Your task to perform on an android device: turn on the 24-hour format for clock Image 0: 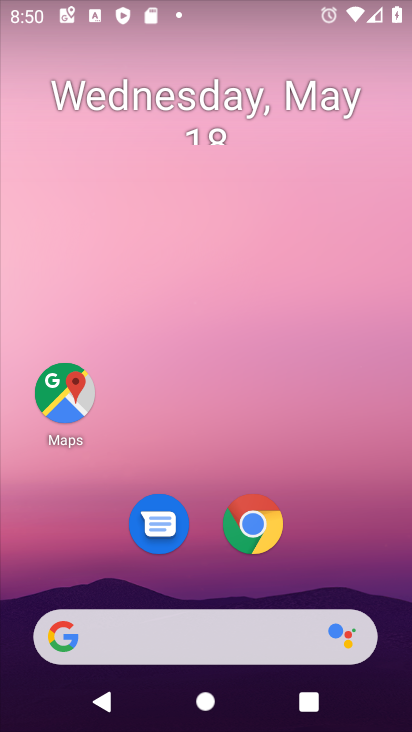
Step 0: drag from (354, 505) to (323, 53)
Your task to perform on an android device: turn on the 24-hour format for clock Image 1: 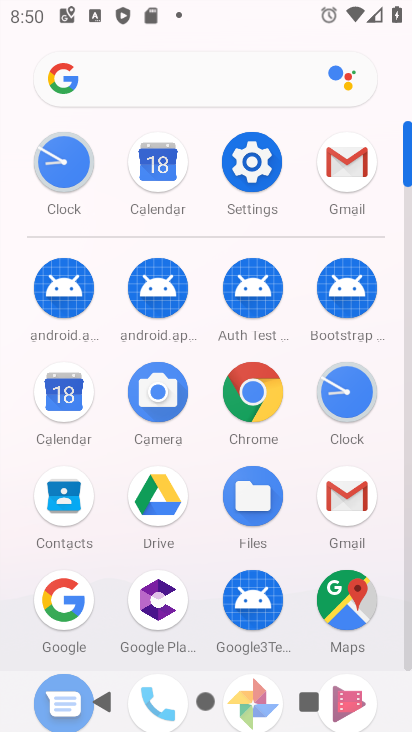
Step 1: click (77, 157)
Your task to perform on an android device: turn on the 24-hour format for clock Image 2: 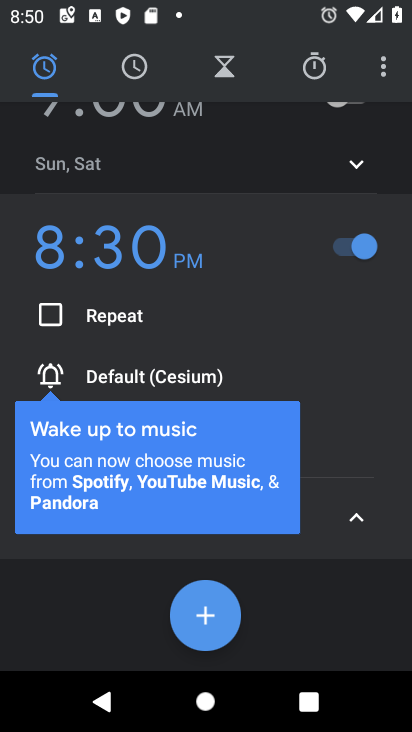
Step 2: click (384, 72)
Your task to perform on an android device: turn on the 24-hour format for clock Image 3: 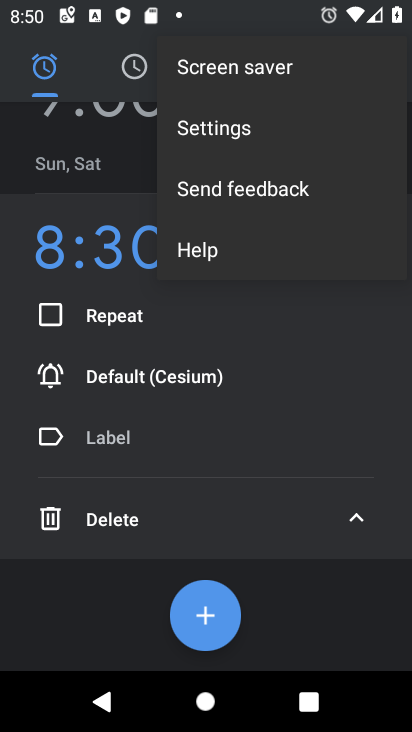
Step 3: click (270, 130)
Your task to perform on an android device: turn on the 24-hour format for clock Image 4: 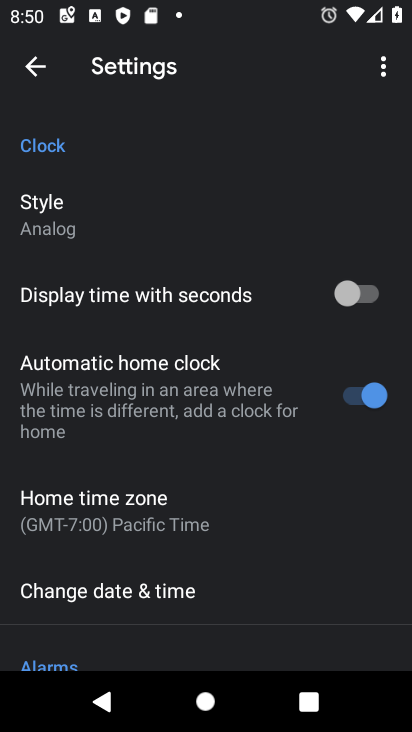
Step 4: click (231, 588)
Your task to perform on an android device: turn on the 24-hour format for clock Image 5: 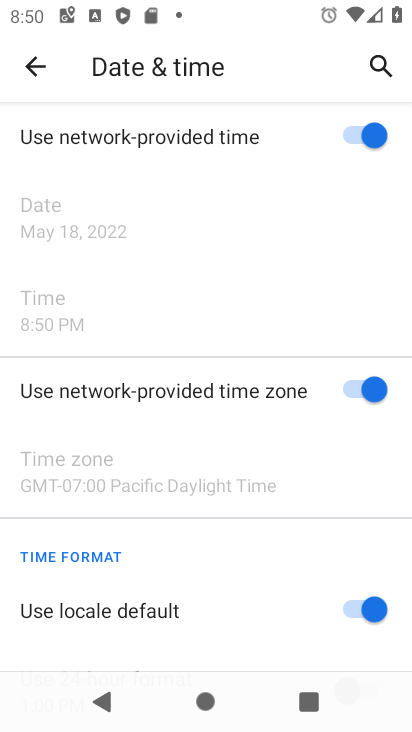
Step 5: drag from (286, 579) to (252, 411)
Your task to perform on an android device: turn on the 24-hour format for clock Image 6: 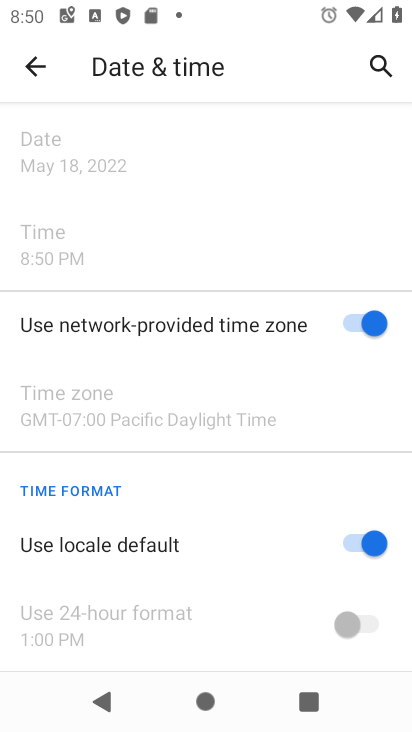
Step 6: click (355, 536)
Your task to perform on an android device: turn on the 24-hour format for clock Image 7: 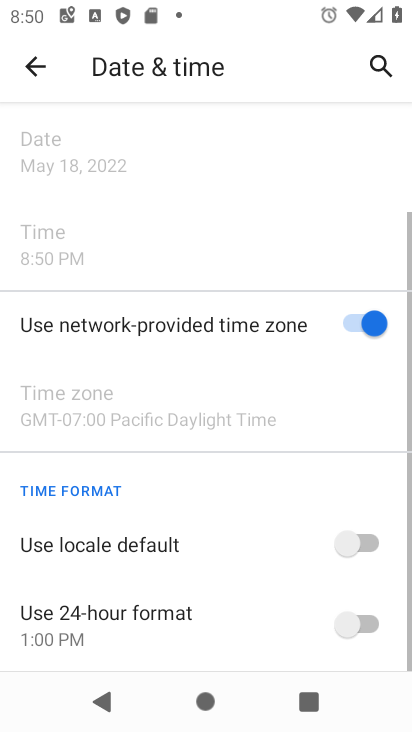
Step 7: click (369, 623)
Your task to perform on an android device: turn on the 24-hour format for clock Image 8: 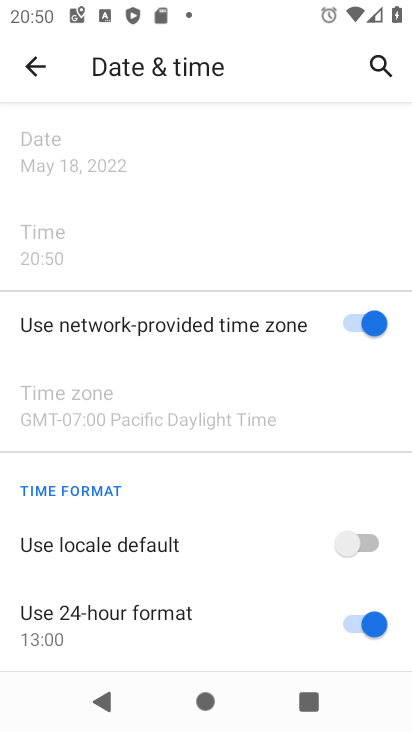
Step 8: task complete